Your task to perform on an android device: check google app version Image 0: 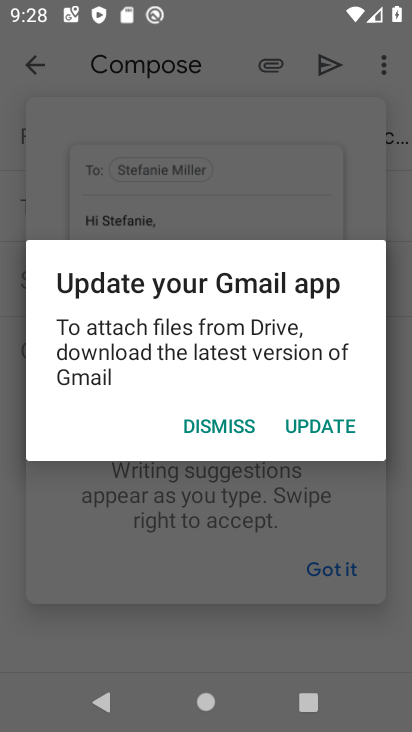
Step 0: press home button
Your task to perform on an android device: check google app version Image 1: 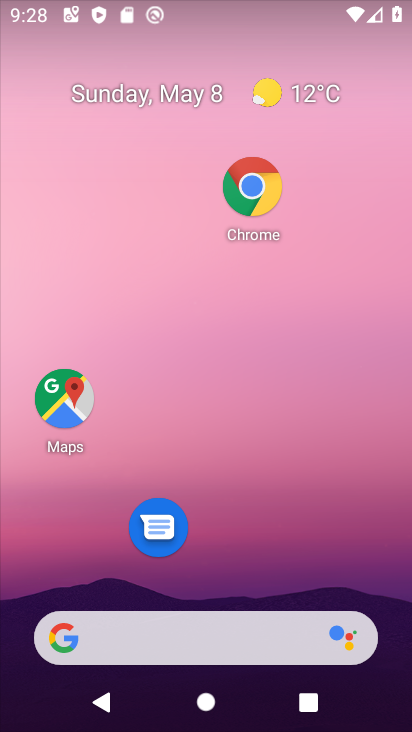
Step 1: drag from (248, 554) to (324, 211)
Your task to perform on an android device: check google app version Image 2: 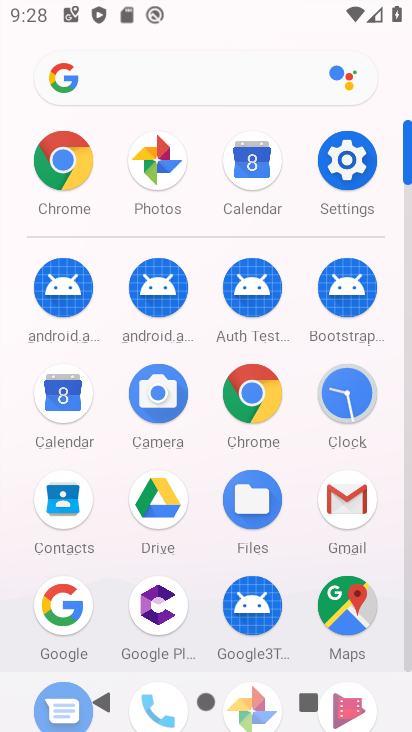
Step 2: click (346, 157)
Your task to perform on an android device: check google app version Image 3: 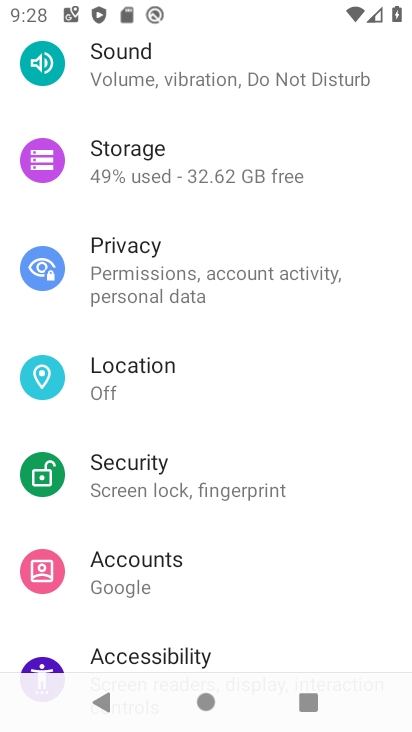
Step 3: press home button
Your task to perform on an android device: check google app version Image 4: 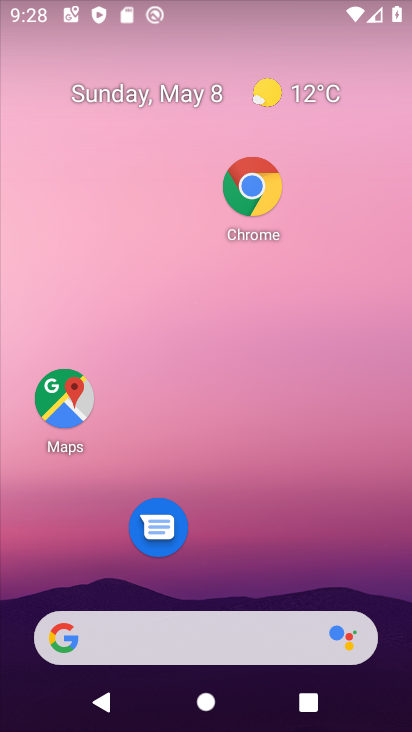
Step 4: drag from (260, 477) to (267, 332)
Your task to perform on an android device: check google app version Image 5: 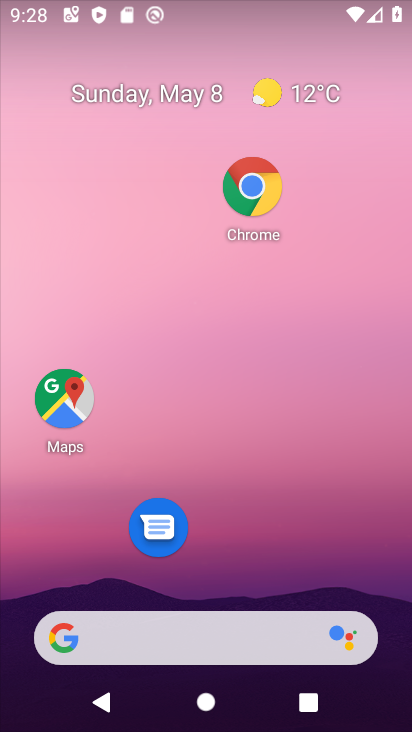
Step 5: drag from (315, 374) to (321, 278)
Your task to perform on an android device: check google app version Image 6: 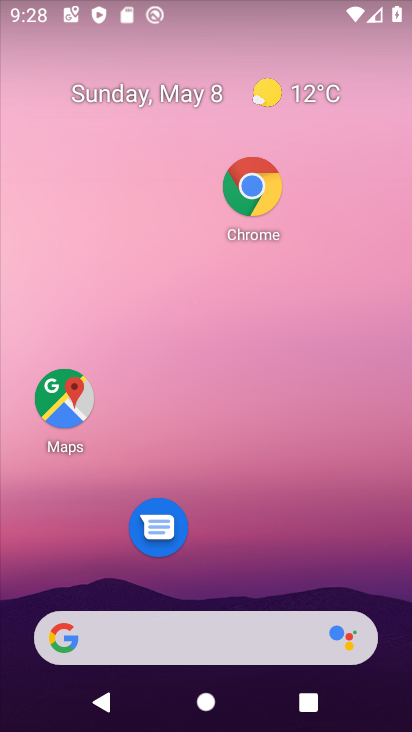
Step 6: drag from (211, 617) to (293, 196)
Your task to perform on an android device: check google app version Image 7: 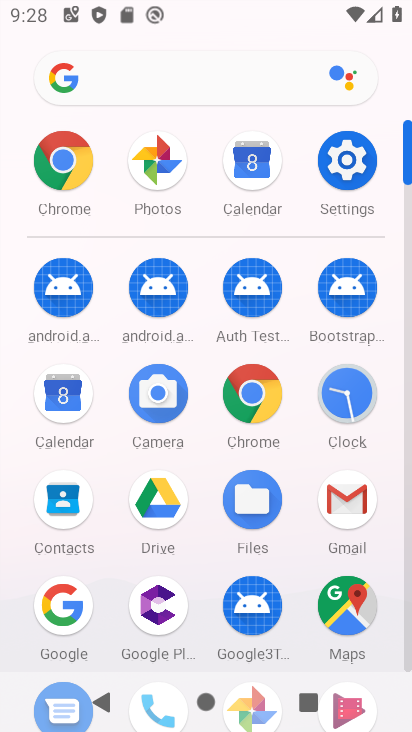
Step 7: click (70, 596)
Your task to perform on an android device: check google app version Image 8: 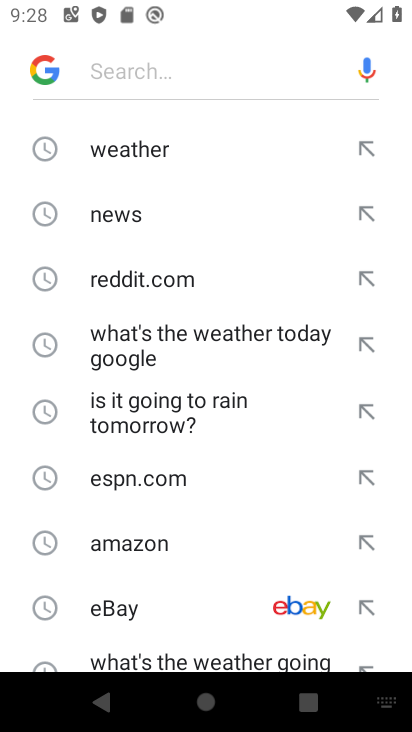
Step 8: click (52, 62)
Your task to perform on an android device: check google app version Image 9: 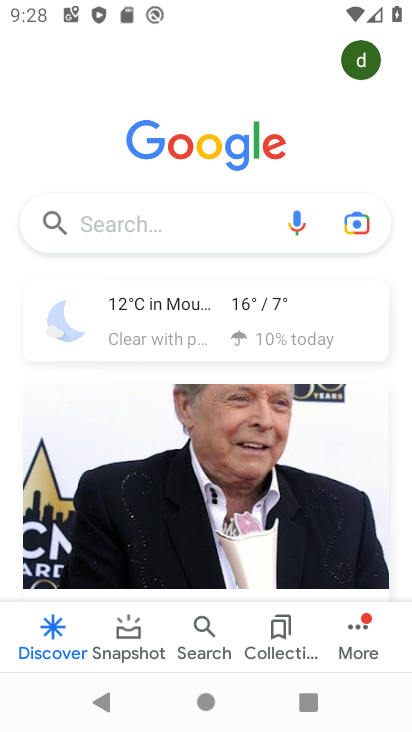
Step 9: click (368, 629)
Your task to perform on an android device: check google app version Image 10: 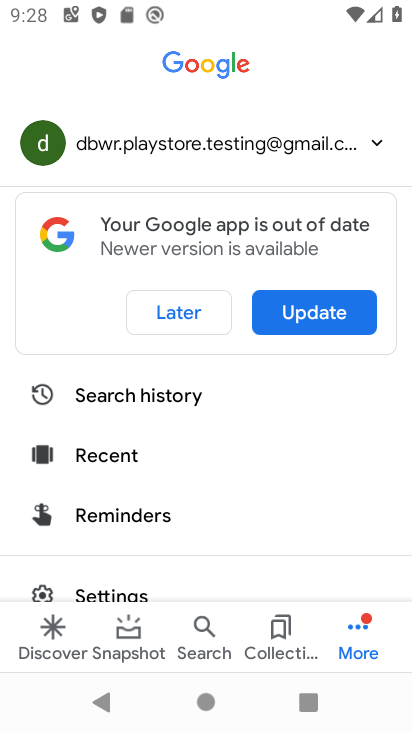
Step 10: drag from (160, 577) to (188, 400)
Your task to perform on an android device: check google app version Image 11: 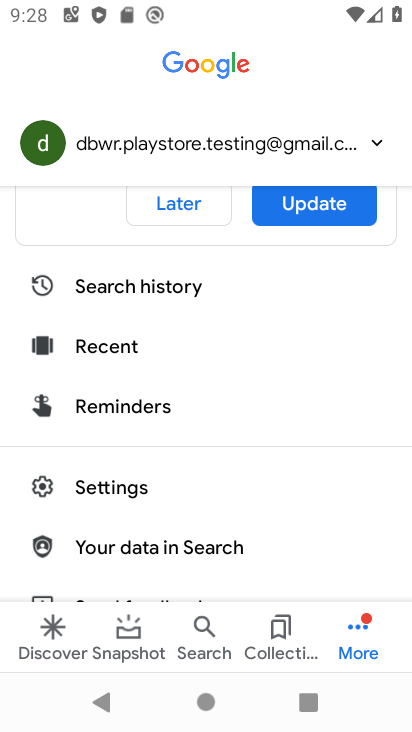
Step 11: click (150, 491)
Your task to perform on an android device: check google app version Image 12: 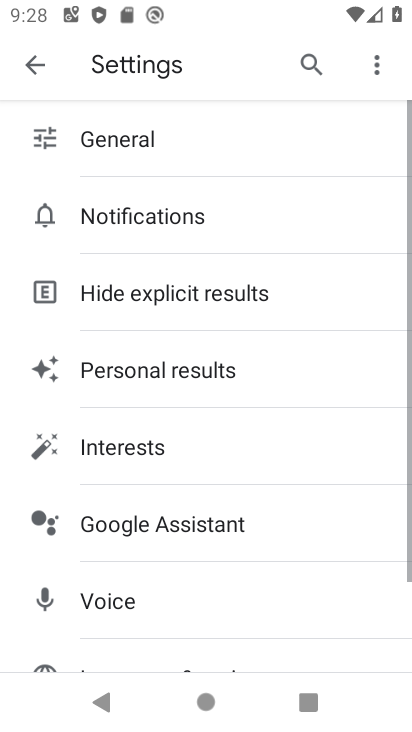
Step 12: drag from (152, 591) to (227, 160)
Your task to perform on an android device: check google app version Image 13: 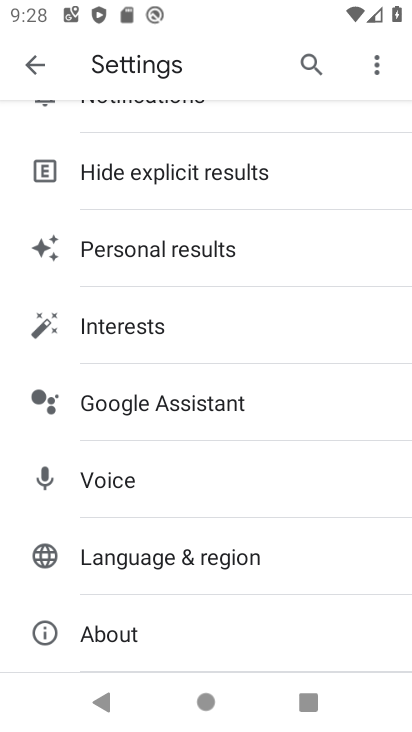
Step 13: click (115, 638)
Your task to perform on an android device: check google app version Image 14: 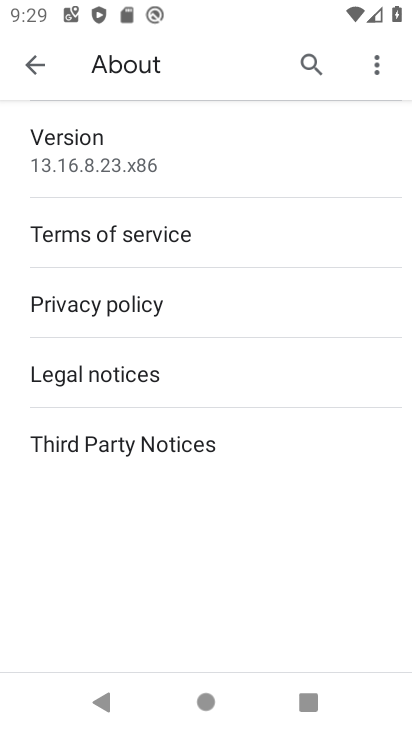
Step 14: task complete